Your task to perform on an android device: When is my next meeting? Image 0: 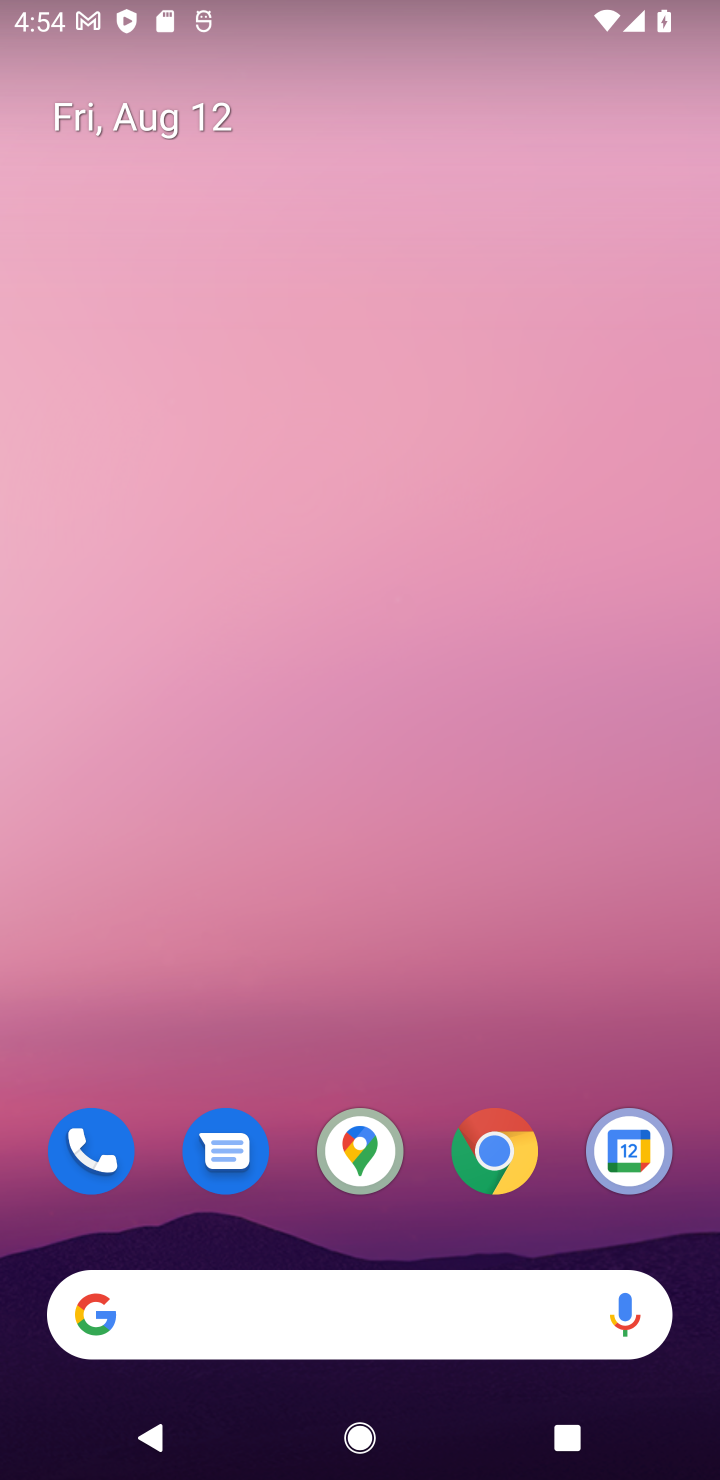
Step 0: drag from (530, 966) to (562, 220)
Your task to perform on an android device: When is my next meeting? Image 1: 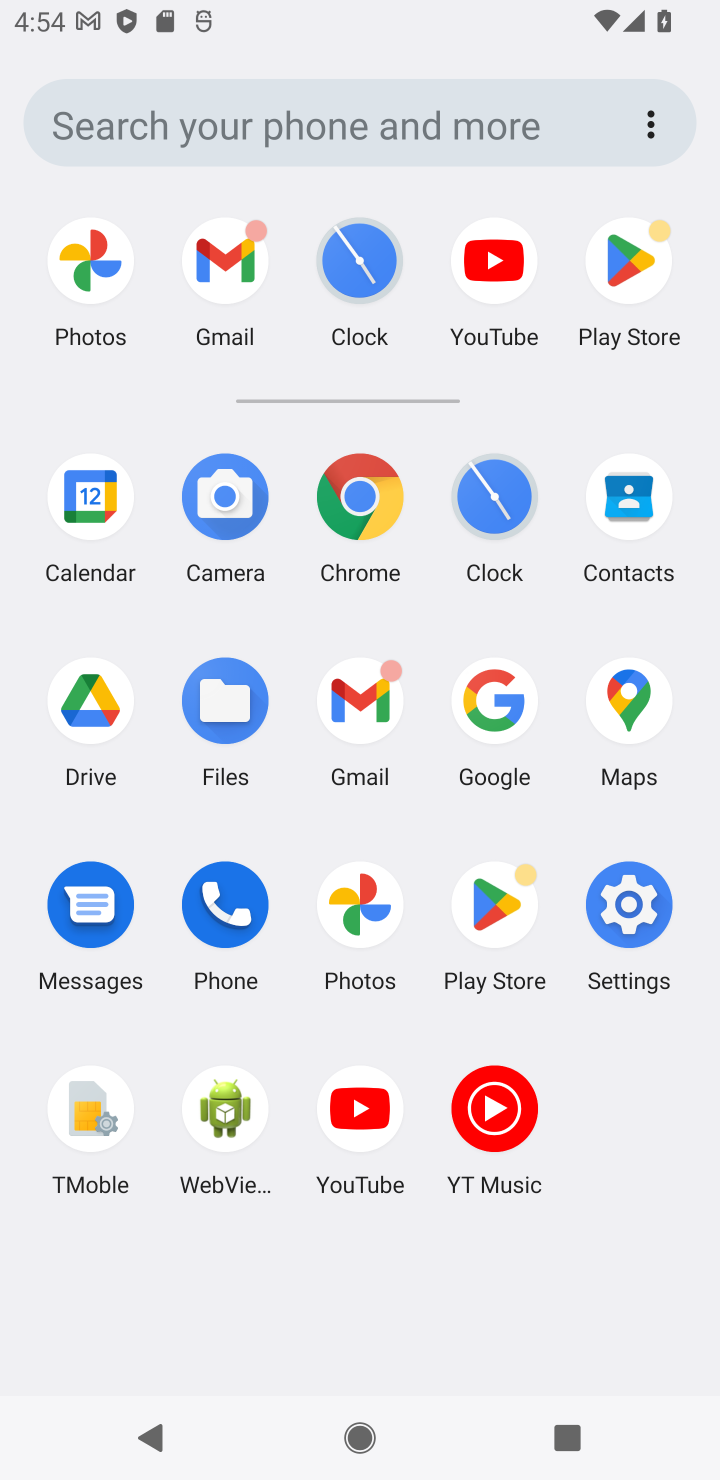
Step 1: click (98, 487)
Your task to perform on an android device: When is my next meeting? Image 2: 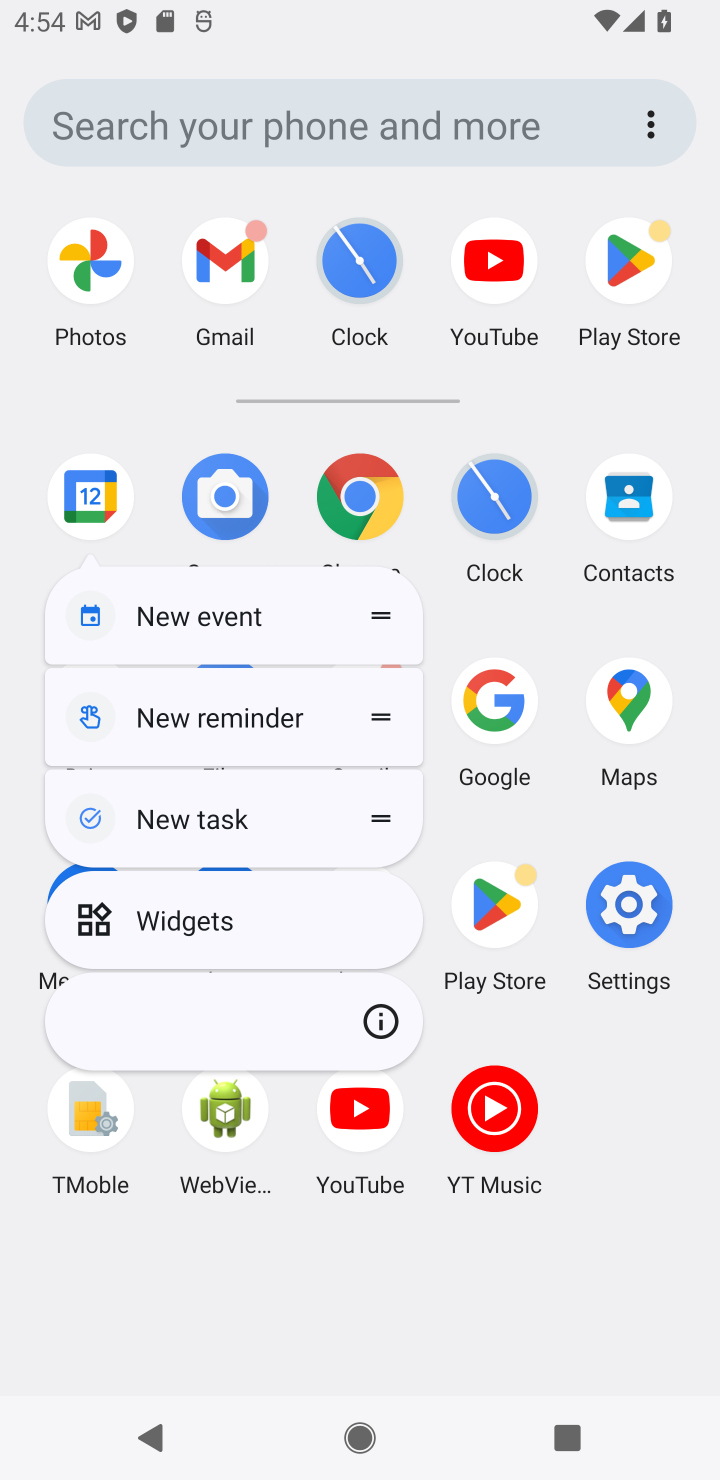
Step 2: click (76, 485)
Your task to perform on an android device: When is my next meeting? Image 3: 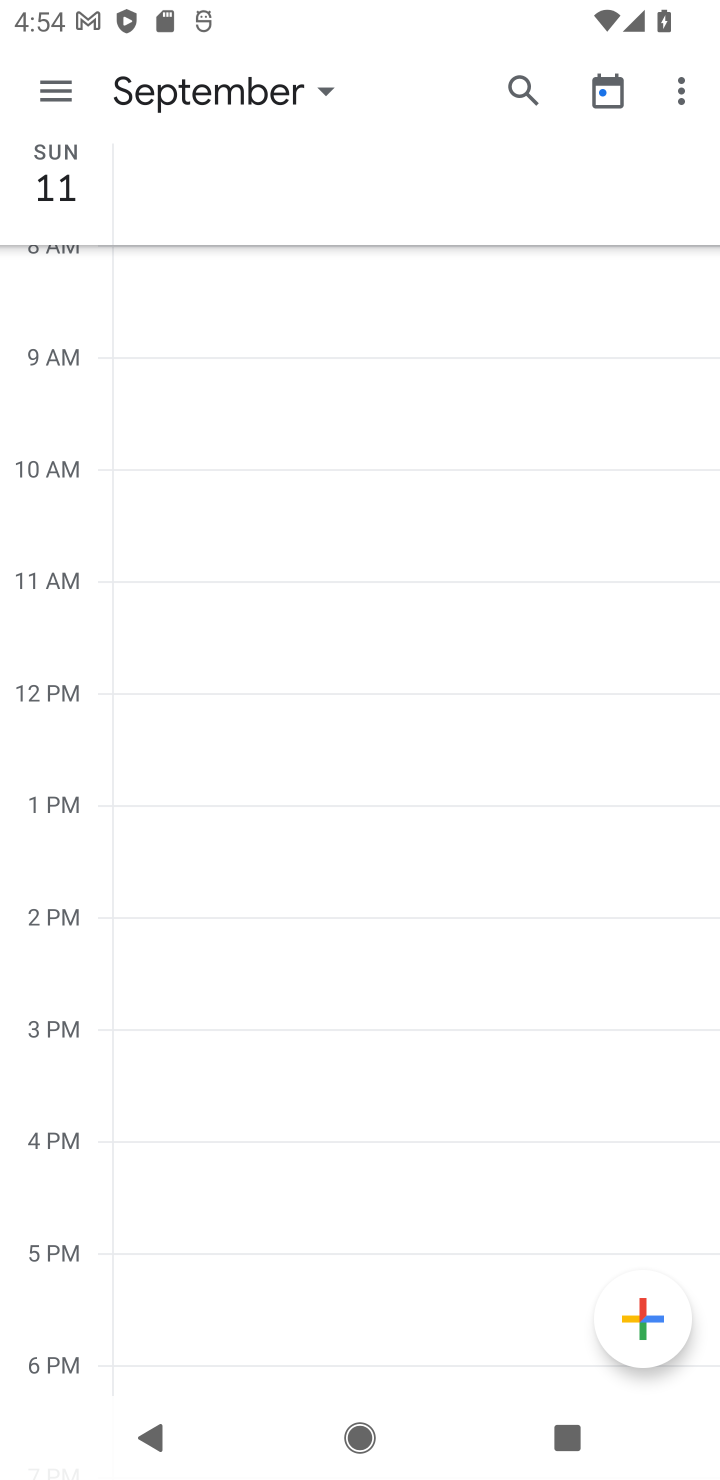
Step 3: click (196, 95)
Your task to perform on an android device: When is my next meeting? Image 4: 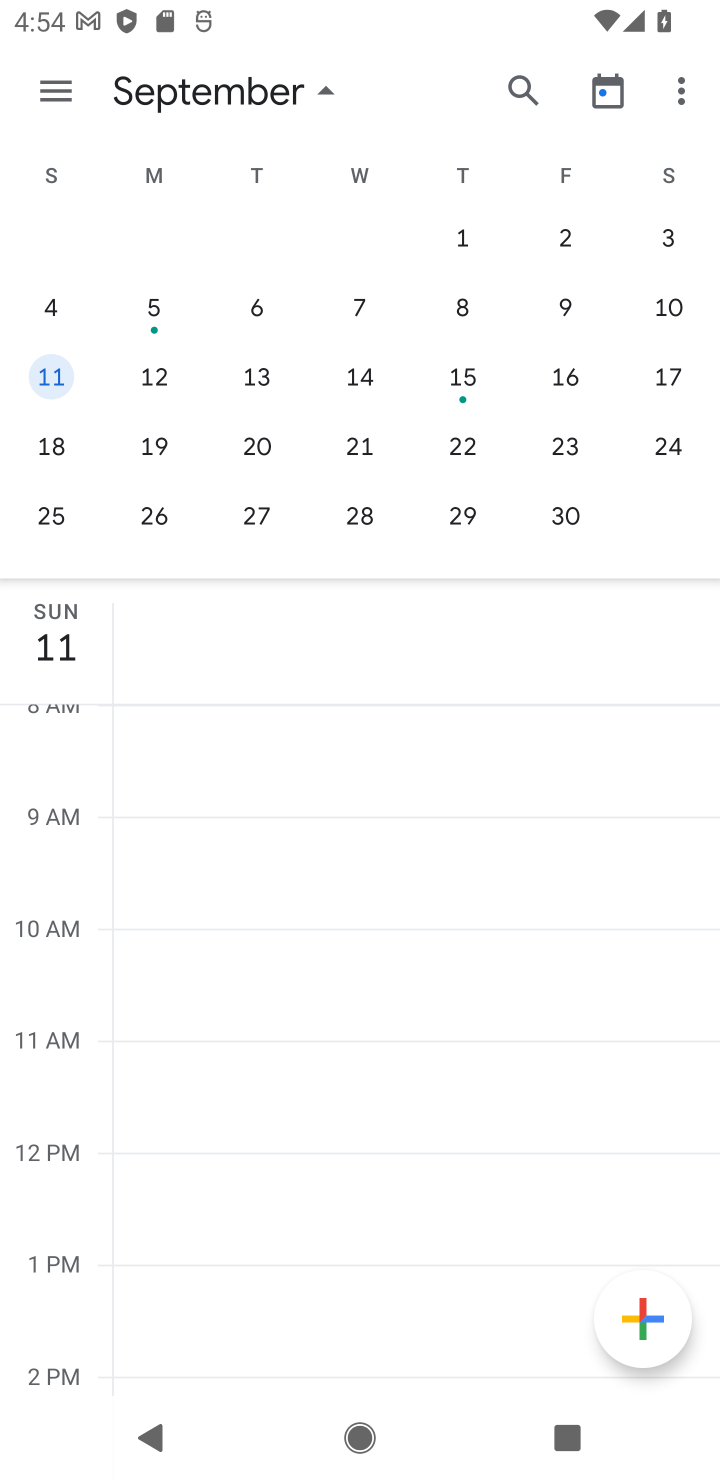
Step 4: drag from (101, 355) to (672, 323)
Your task to perform on an android device: When is my next meeting? Image 5: 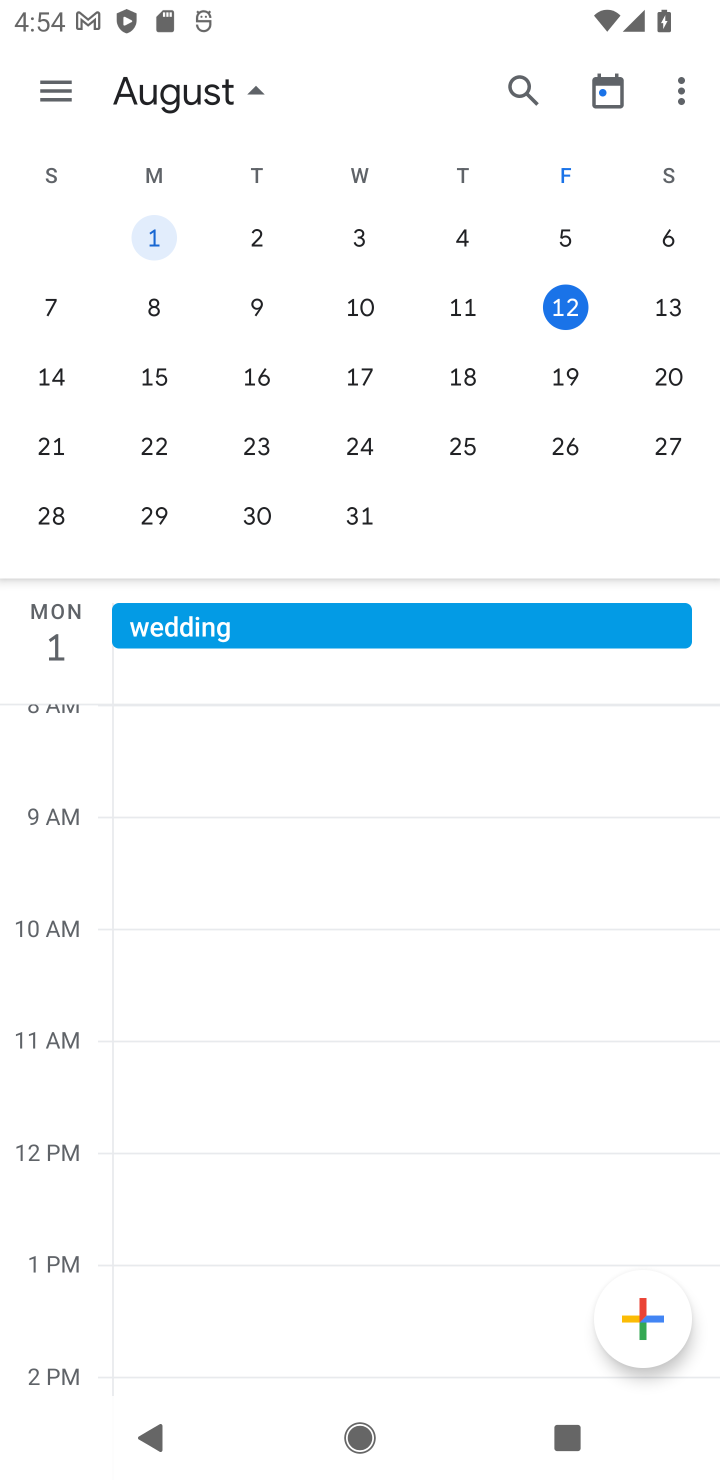
Step 5: click (559, 291)
Your task to perform on an android device: When is my next meeting? Image 6: 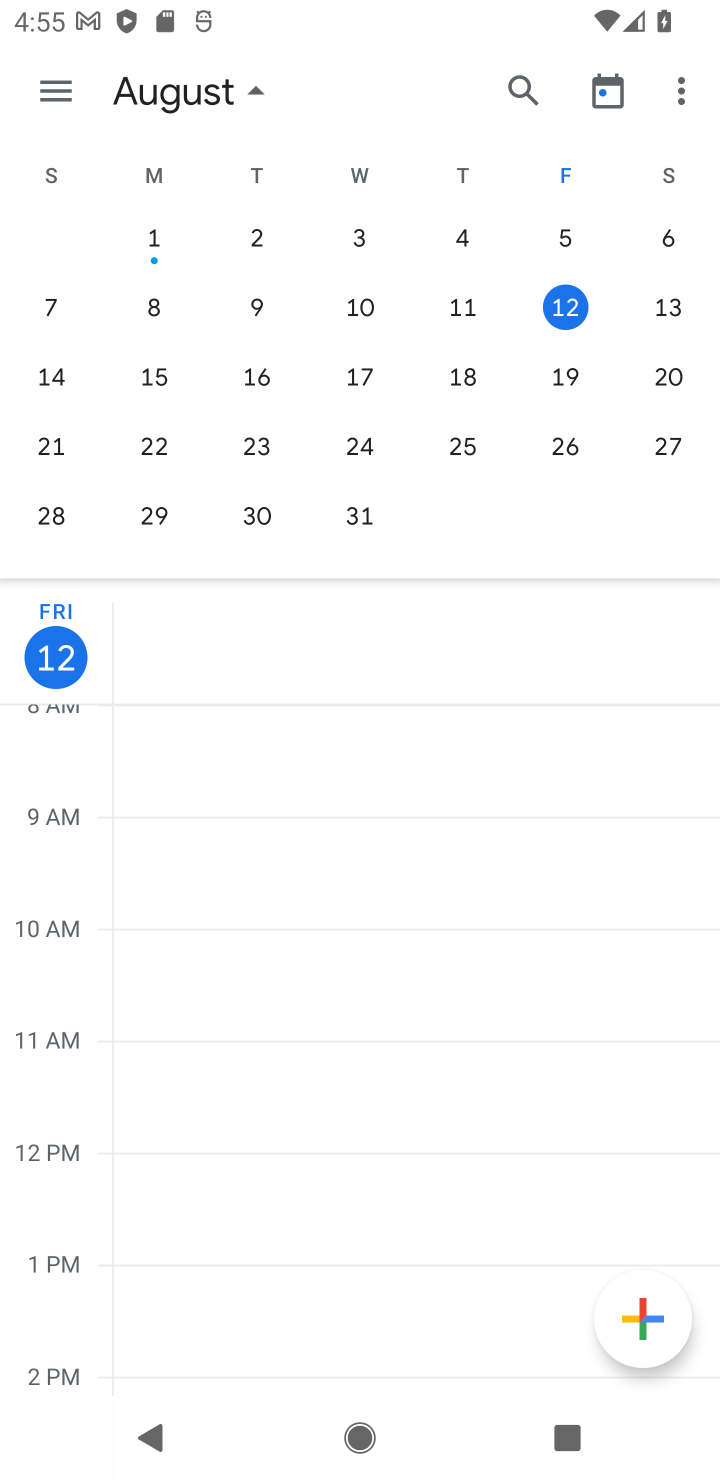
Step 6: click (66, 97)
Your task to perform on an android device: When is my next meeting? Image 7: 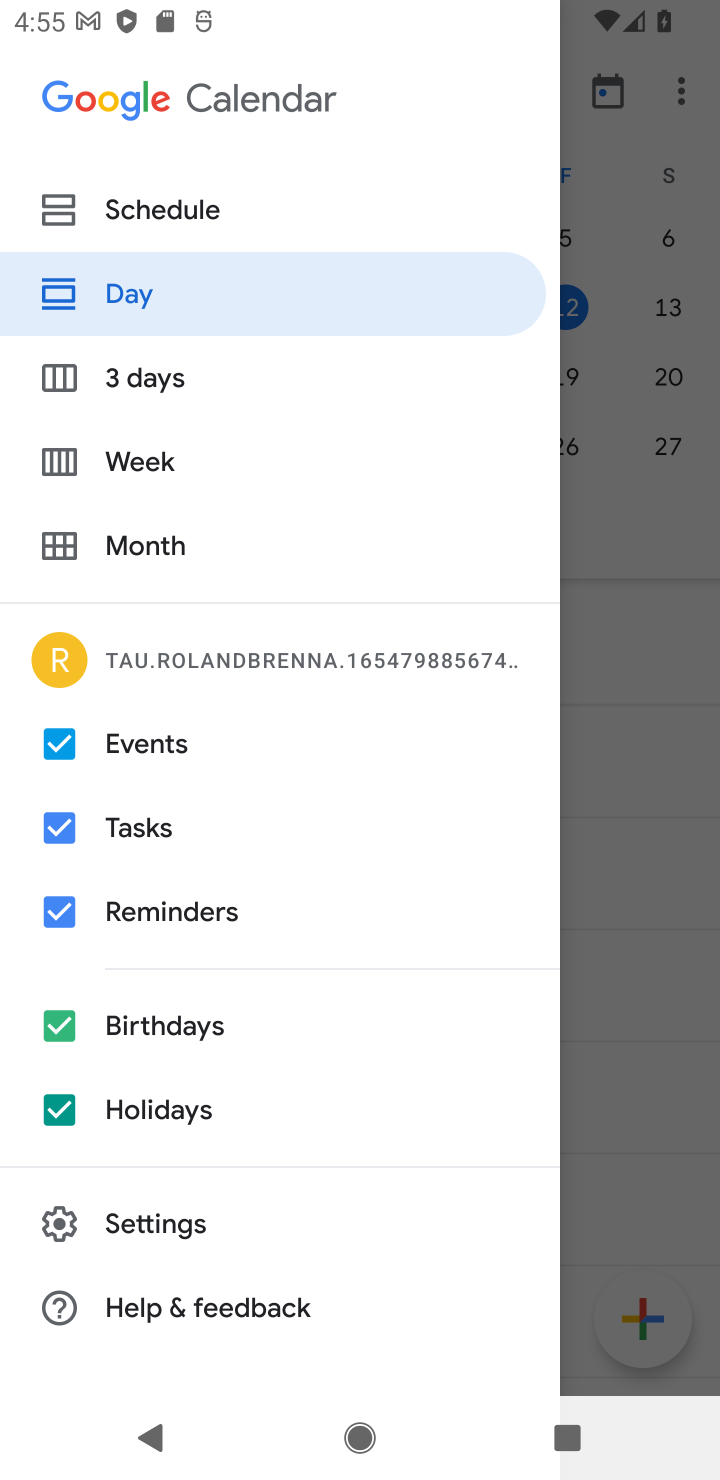
Step 7: click (144, 476)
Your task to perform on an android device: When is my next meeting? Image 8: 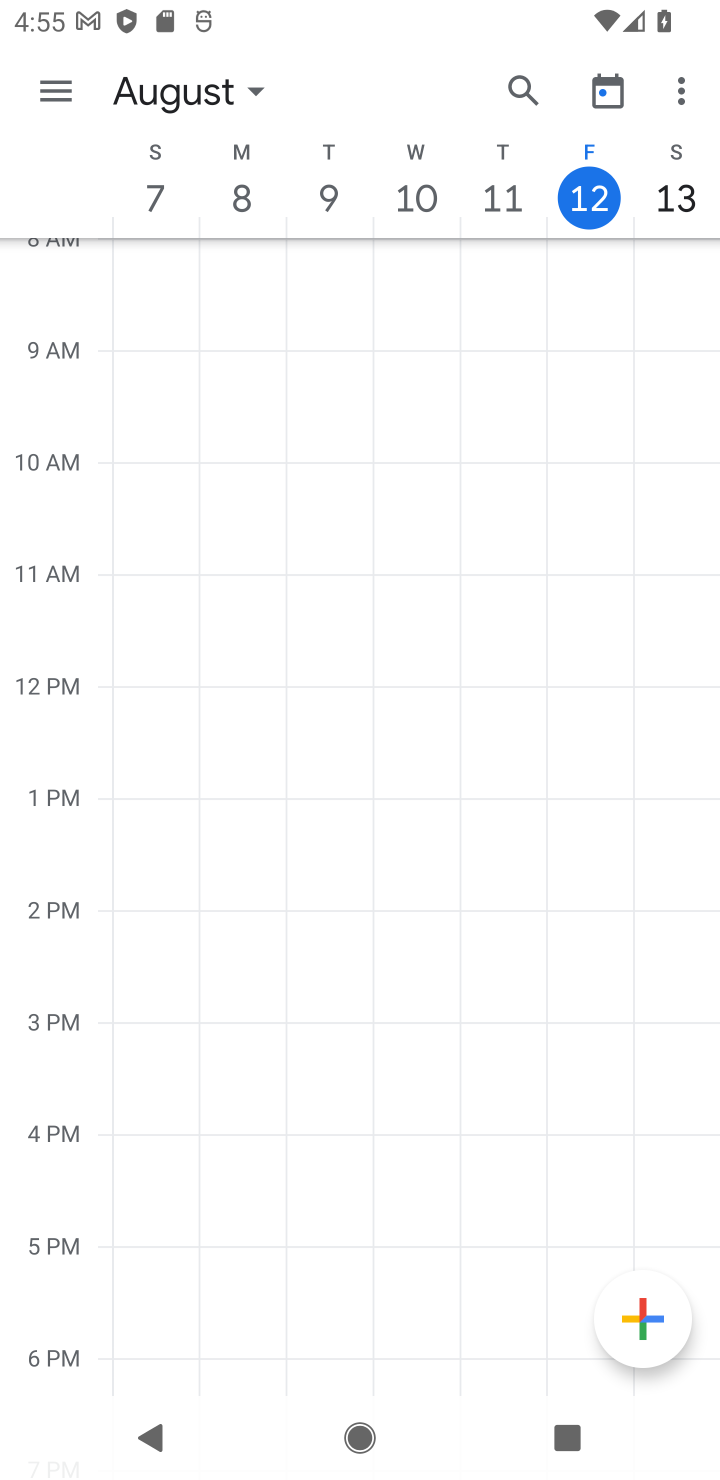
Step 8: click (57, 78)
Your task to perform on an android device: When is my next meeting? Image 9: 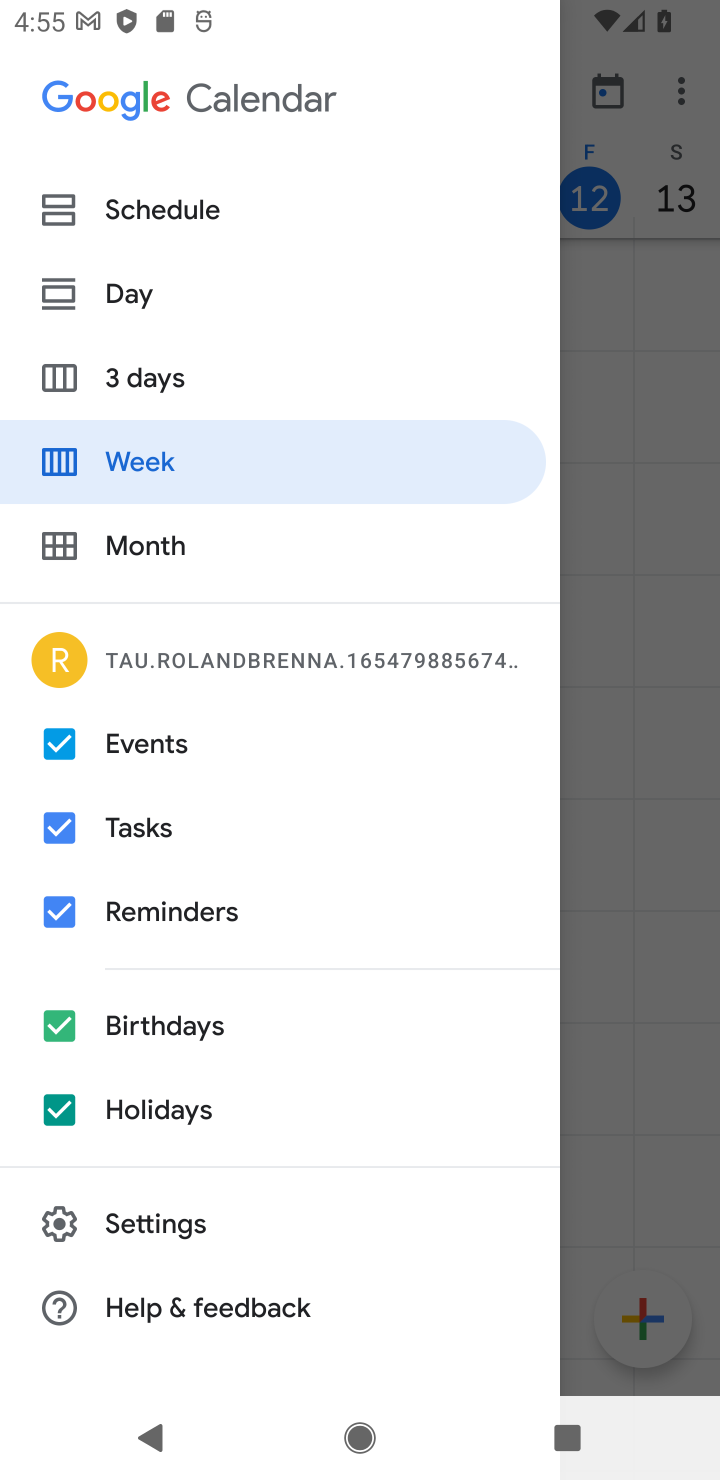
Step 9: click (189, 373)
Your task to perform on an android device: When is my next meeting? Image 10: 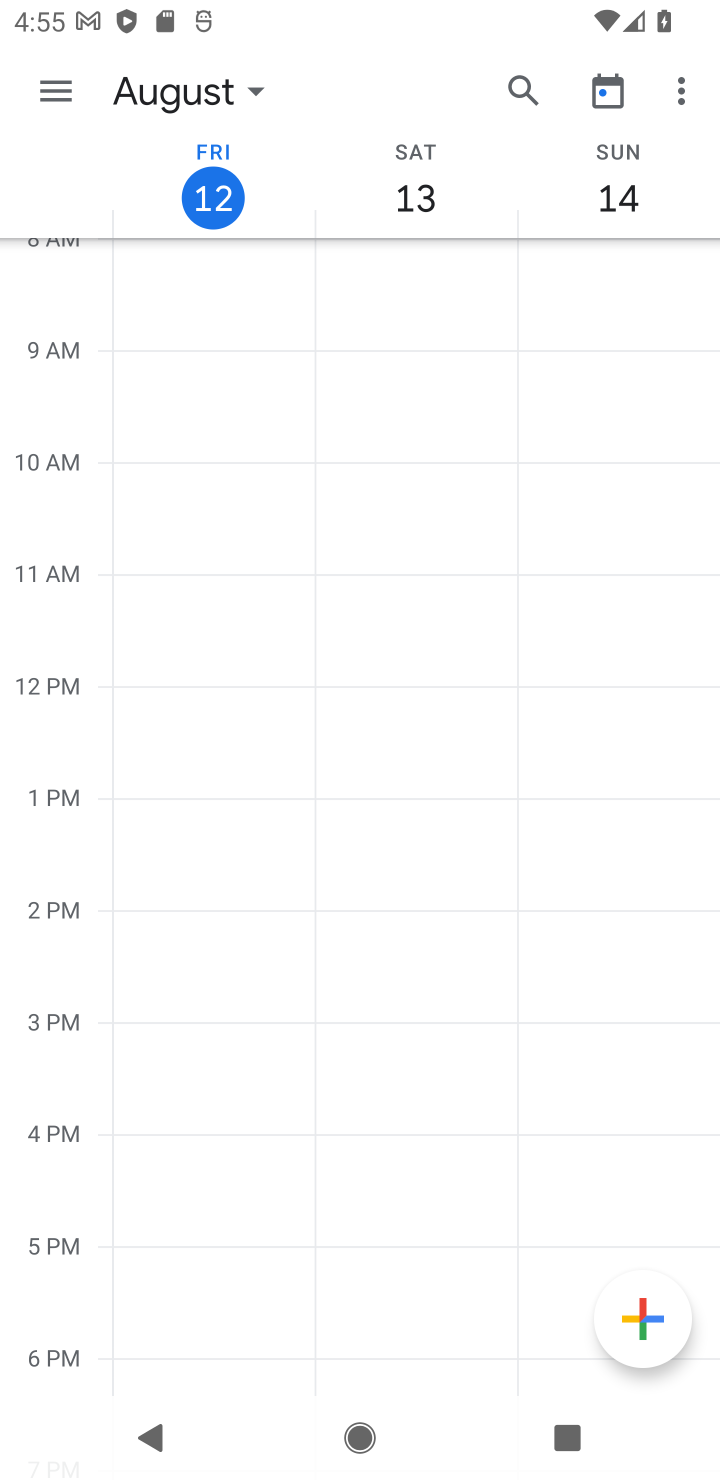
Step 10: task complete